Your task to perform on an android device: Open Google Chrome and open the bookmarks view Image 0: 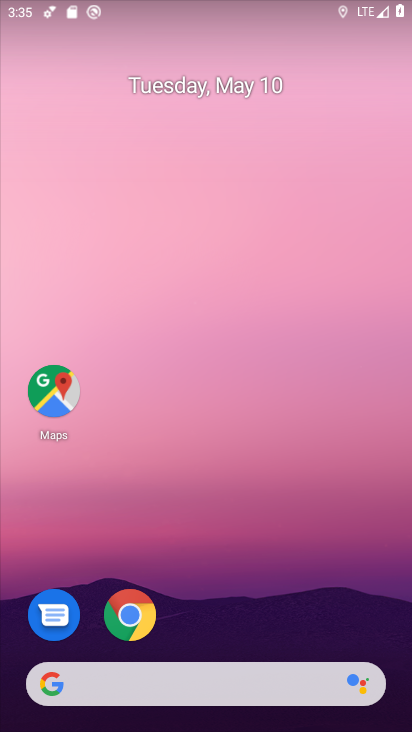
Step 0: drag from (226, 599) to (238, 99)
Your task to perform on an android device: Open Google Chrome and open the bookmarks view Image 1: 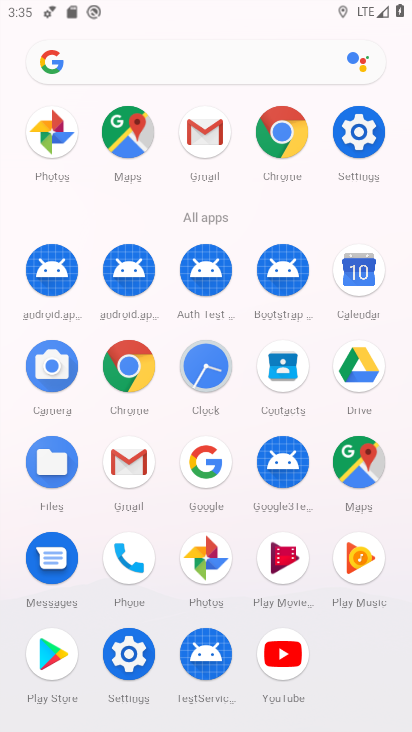
Step 1: click (286, 143)
Your task to perform on an android device: Open Google Chrome and open the bookmarks view Image 2: 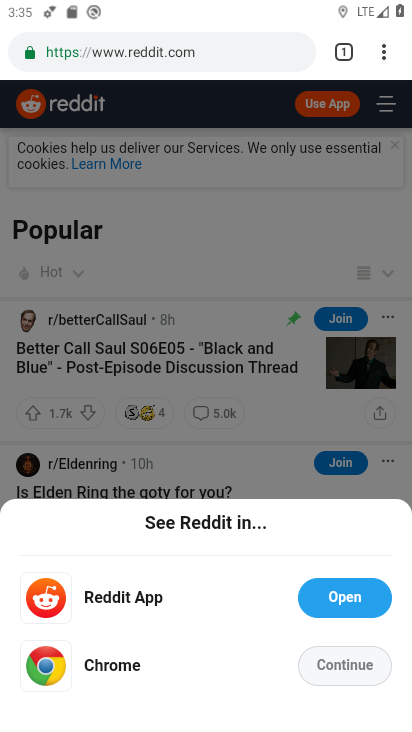
Step 2: click (384, 57)
Your task to perform on an android device: Open Google Chrome and open the bookmarks view Image 3: 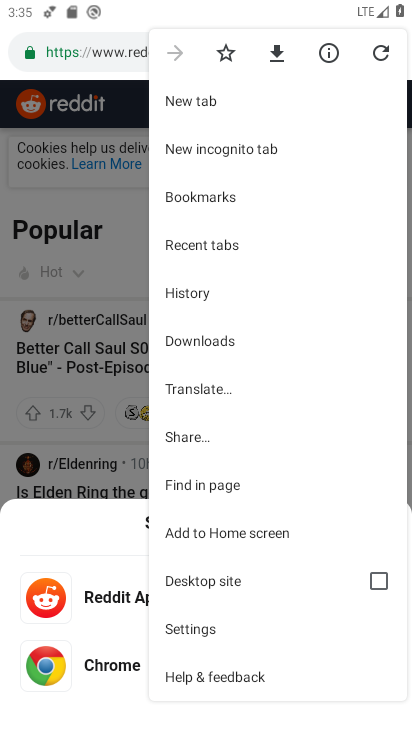
Step 3: click (208, 192)
Your task to perform on an android device: Open Google Chrome and open the bookmarks view Image 4: 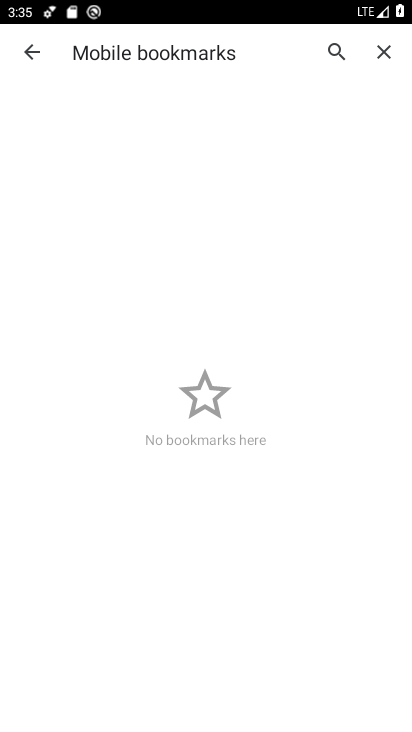
Step 4: task complete